Your task to perform on an android device: turn on improve location accuracy Image 0: 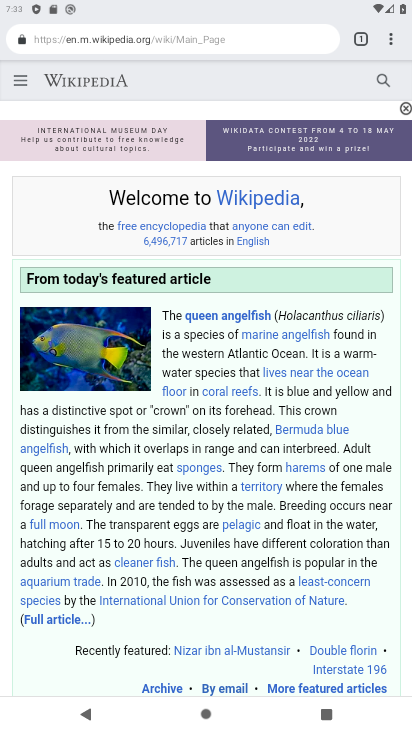
Step 0: press home button
Your task to perform on an android device: turn on improve location accuracy Image 1: 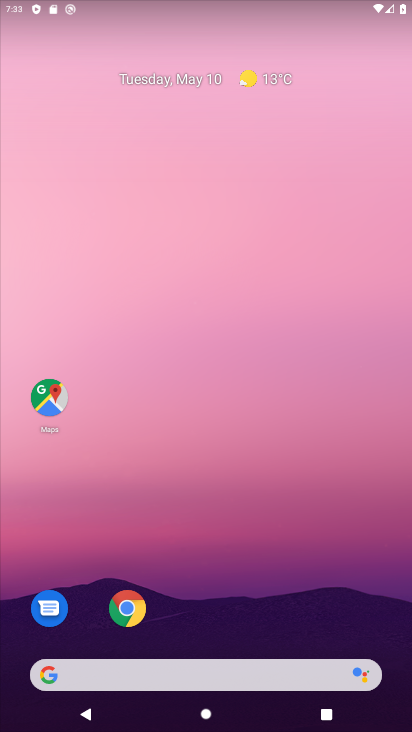
Step 1: drag from (181, 673) to (324, 109)
Your task to perform on an android device: turn on improve location accuracy Image 2: 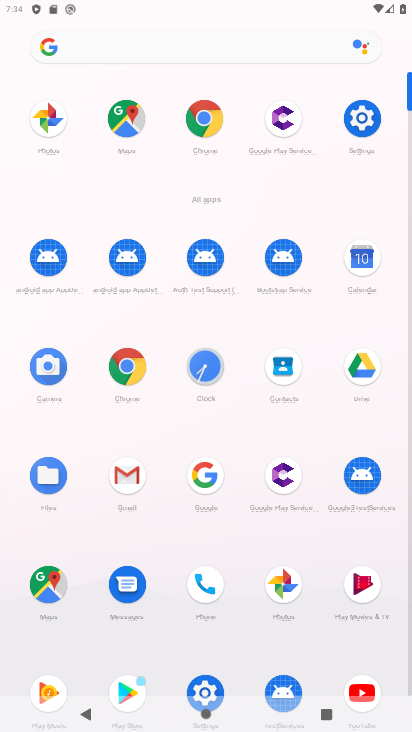
Step 2: click (361, 126)
Your task to perform on an android device: turn on improve location accuracy Image 3: 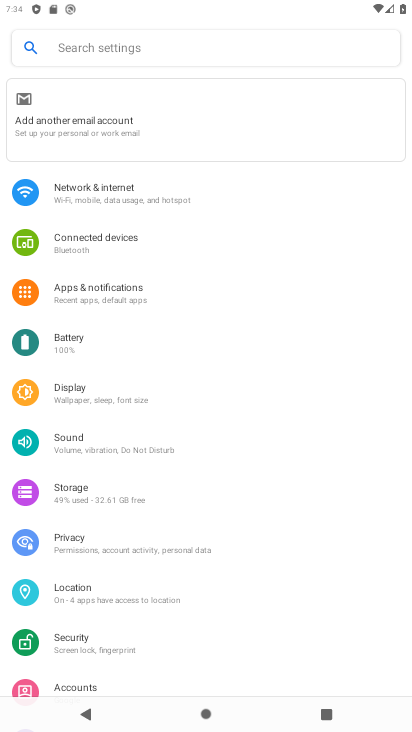
Step 3: click (74, 588)
Your task to perform on an android device: turn on improve location accuracy Image 4: 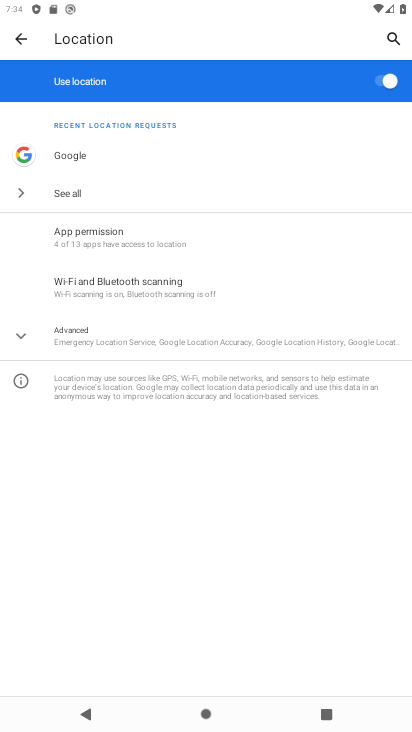
Step 4: click (85, 342)
Your task to perform on an android device: turn on improve location accuracy Image 5: 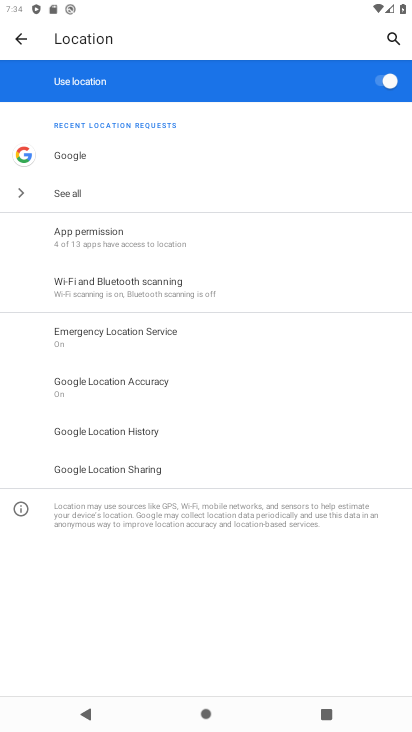
Step 5: click (130, 378)
Your task to perform on an android device: turn on improve location accuracy Image 6: 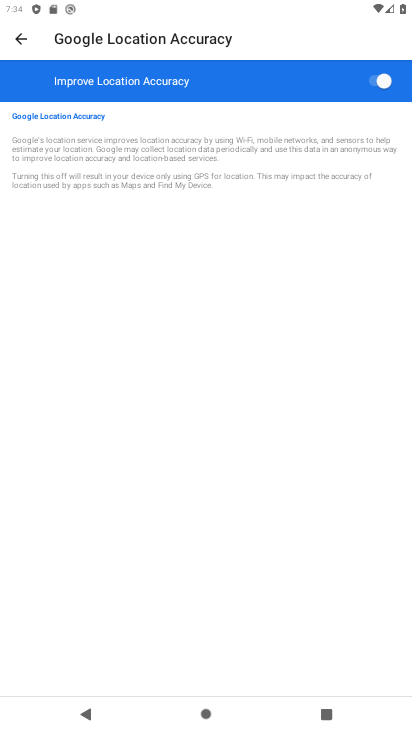
Step 6: task complete